Your task to perform on an android device: When is my next meeting? Image 0: 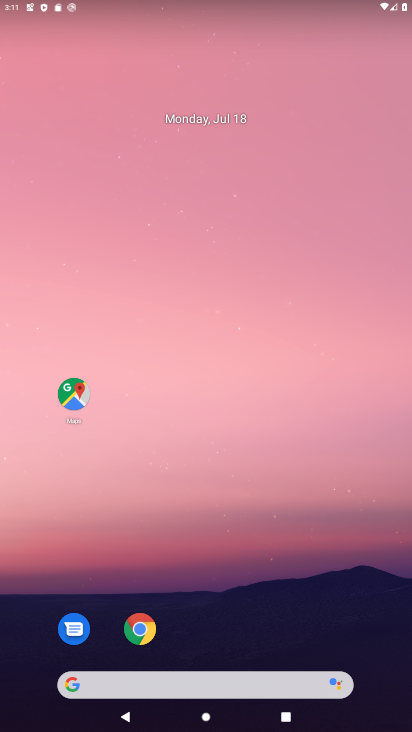
Step 0: drag from (205, 645) to (205, 157)
Your task to perform on an android device: When is my next meeting? Image 1: 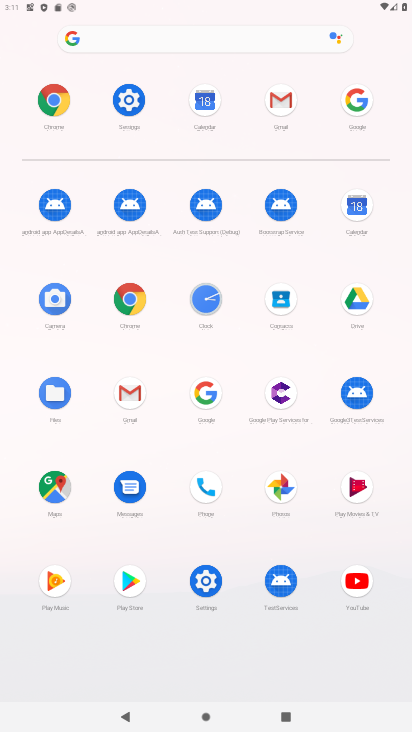
Step 1: click (202, 123)
Your task to perform on an android device: When is my next meeting? Image 2: 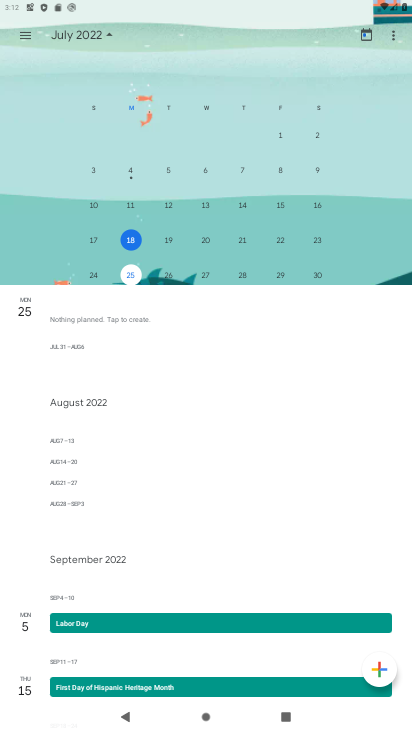
Step 2: click (159, 265)
Your task to perform on an android device: When is my next meeting? Image 3: 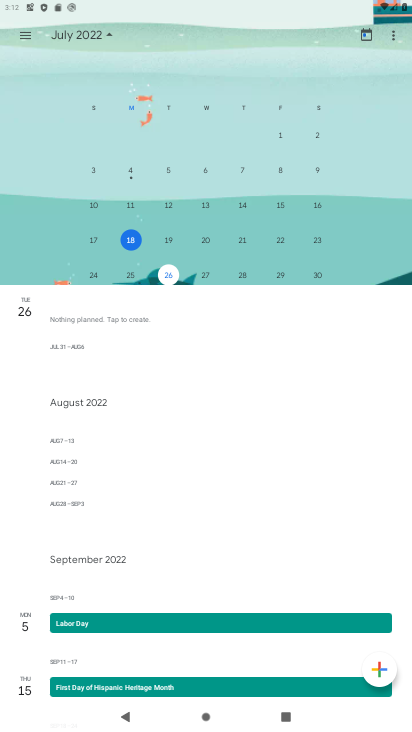
Step 3: task complete